Your task to perform on an android device: open app "eBay: The shopping marketplace" (install if not already installed), go to login, and select forgot password Image 0: 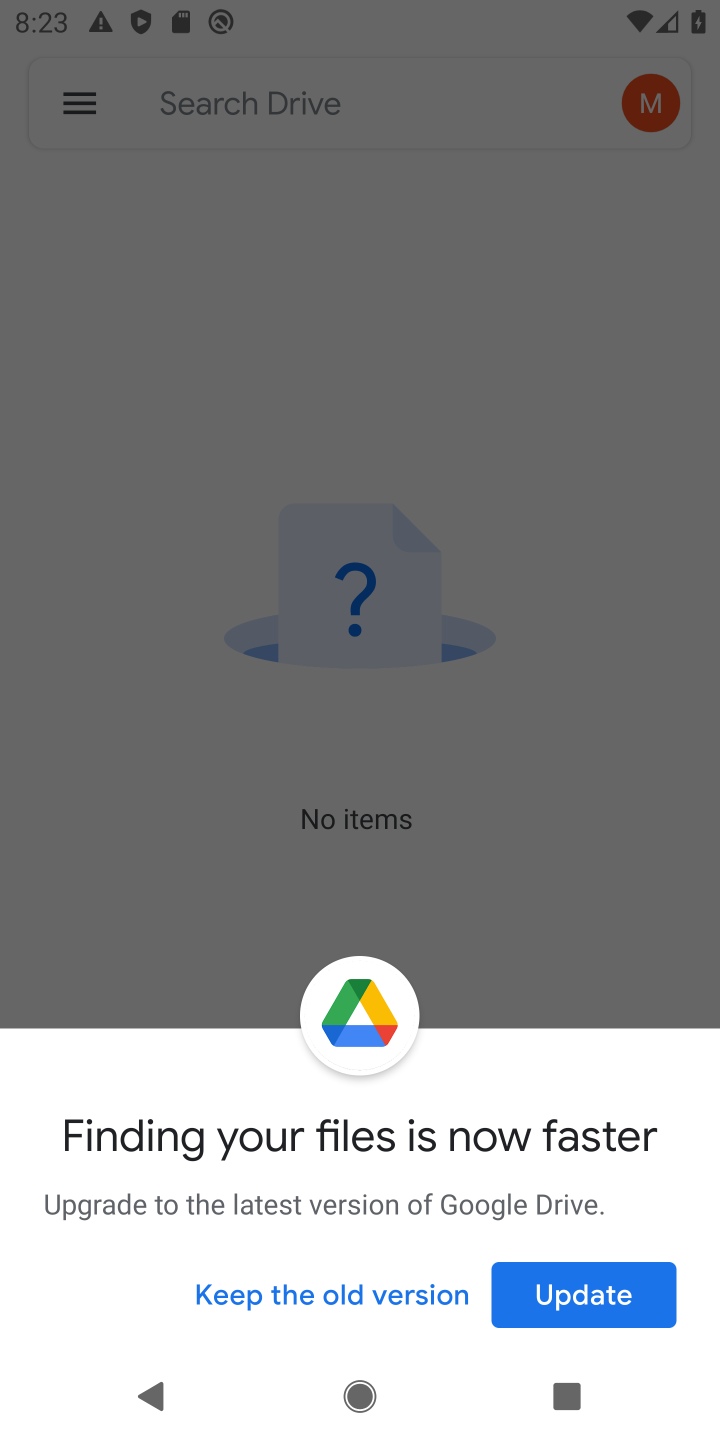
Step 0: press home button
Your task to perform on an android device: open app "eBay: The shopping marketplace" (install if not already installed), go to login, and select forgot password Image 1: 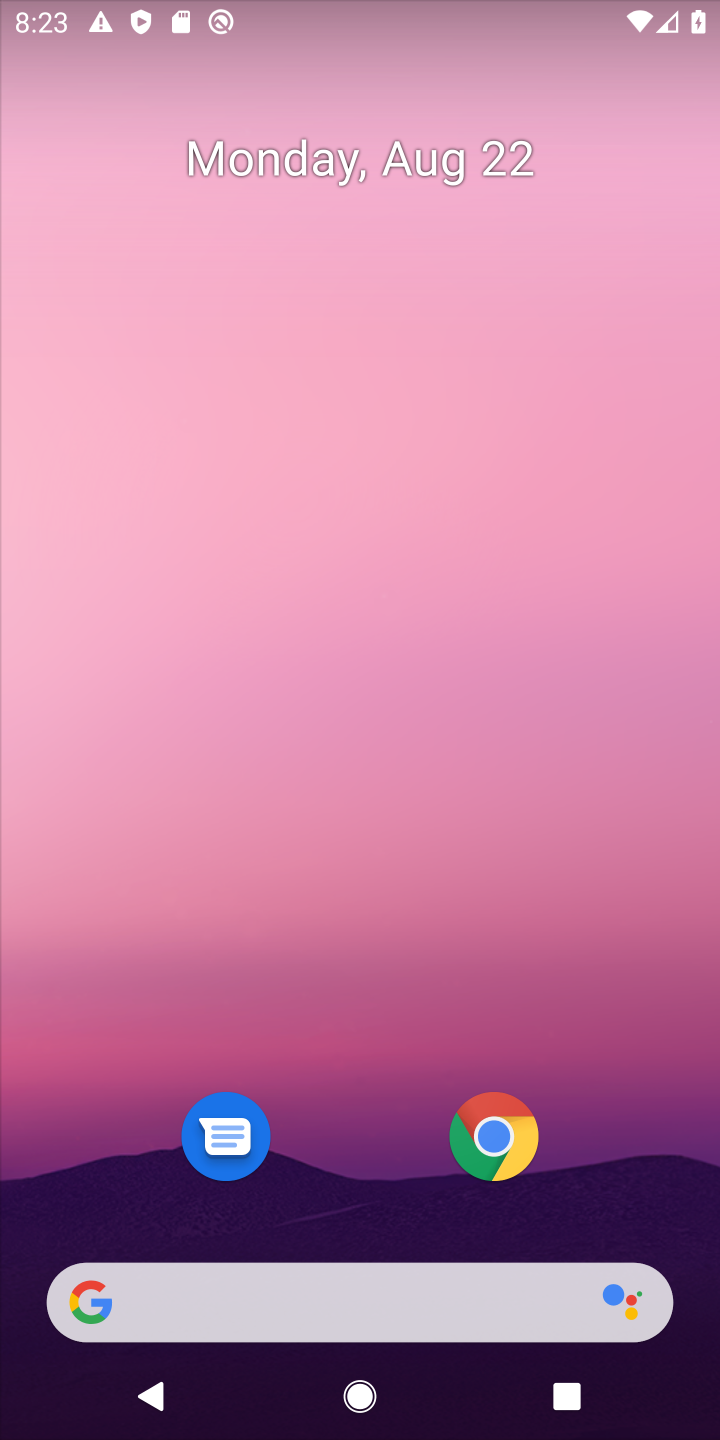
Step 1: drag from (287, 1152) to (413, 620)
Your task to perform on an android device: open app "eBay: The shopping marketplace" (install if not already installed), go to login, and select forgot password Image 2: 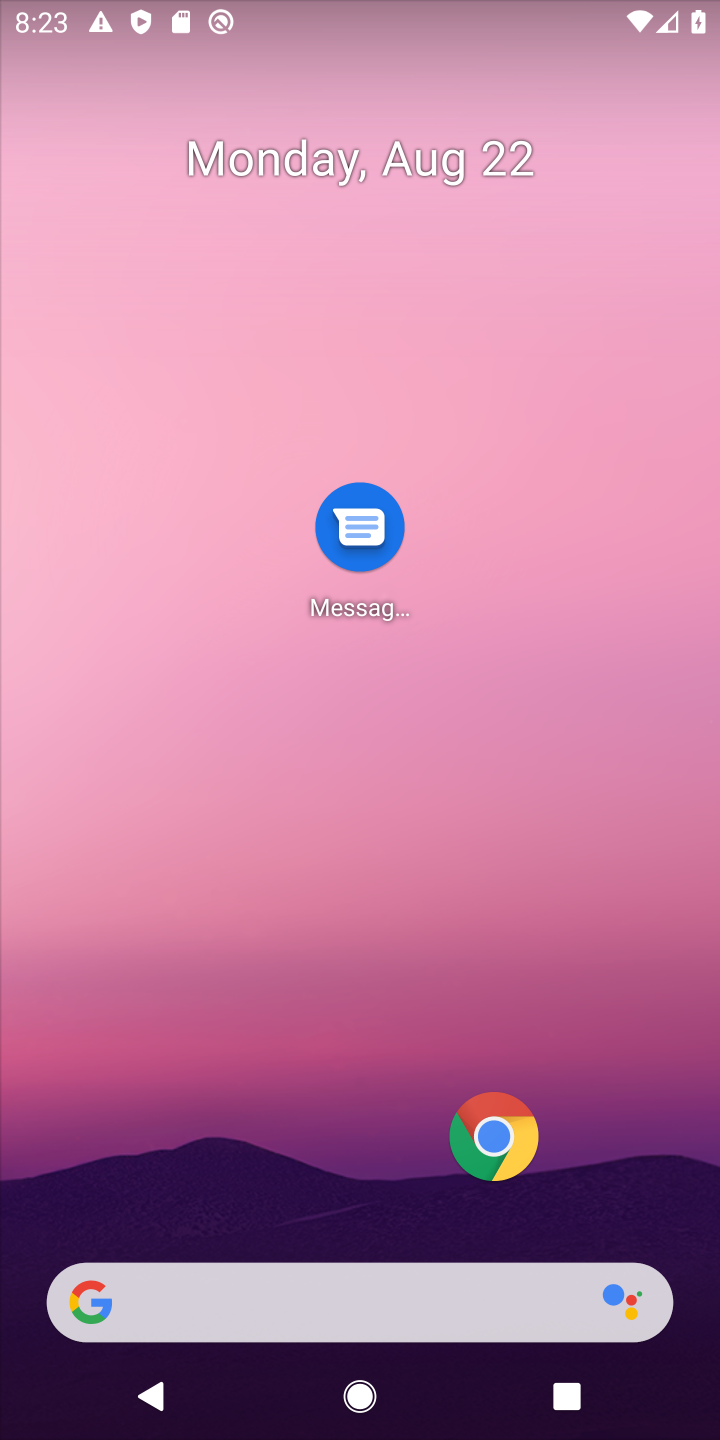
Step 2: drag from (268, 1181) to (285, 363)
Your task to perform on an android device: open app "eBay: The shopping marketplace" (install if not already installed), go to login, and select forgot password Image 3: 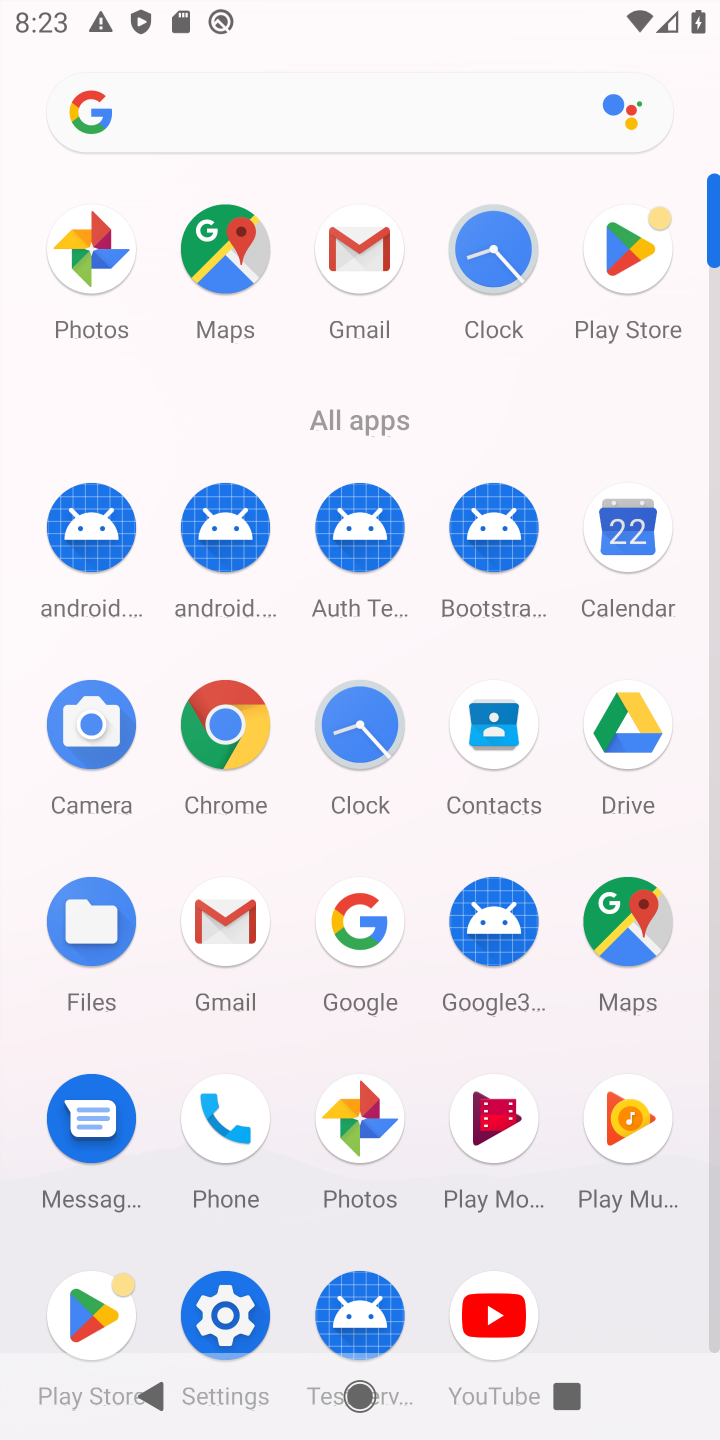
Step 3: click (650, 206)
Your task to perform on an android device: open app "eBay: The shopping marketplace" (install if not already installed), go to login, and select forgot password Image 4: 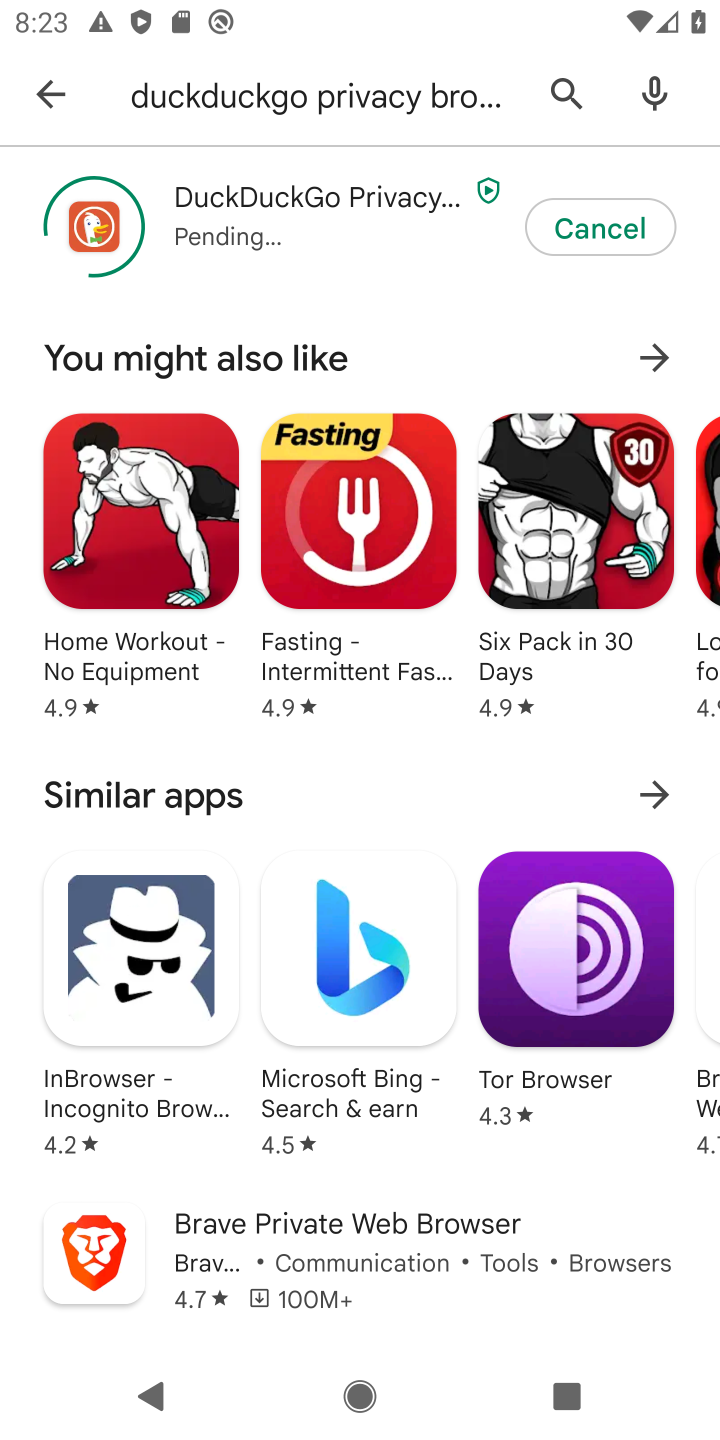
Step 4: click (70, 86)
Your task to perform on an android device: open app "eBay: The shopping marketplace" (install if not already installed), go to login, and select forgot password Image 5: 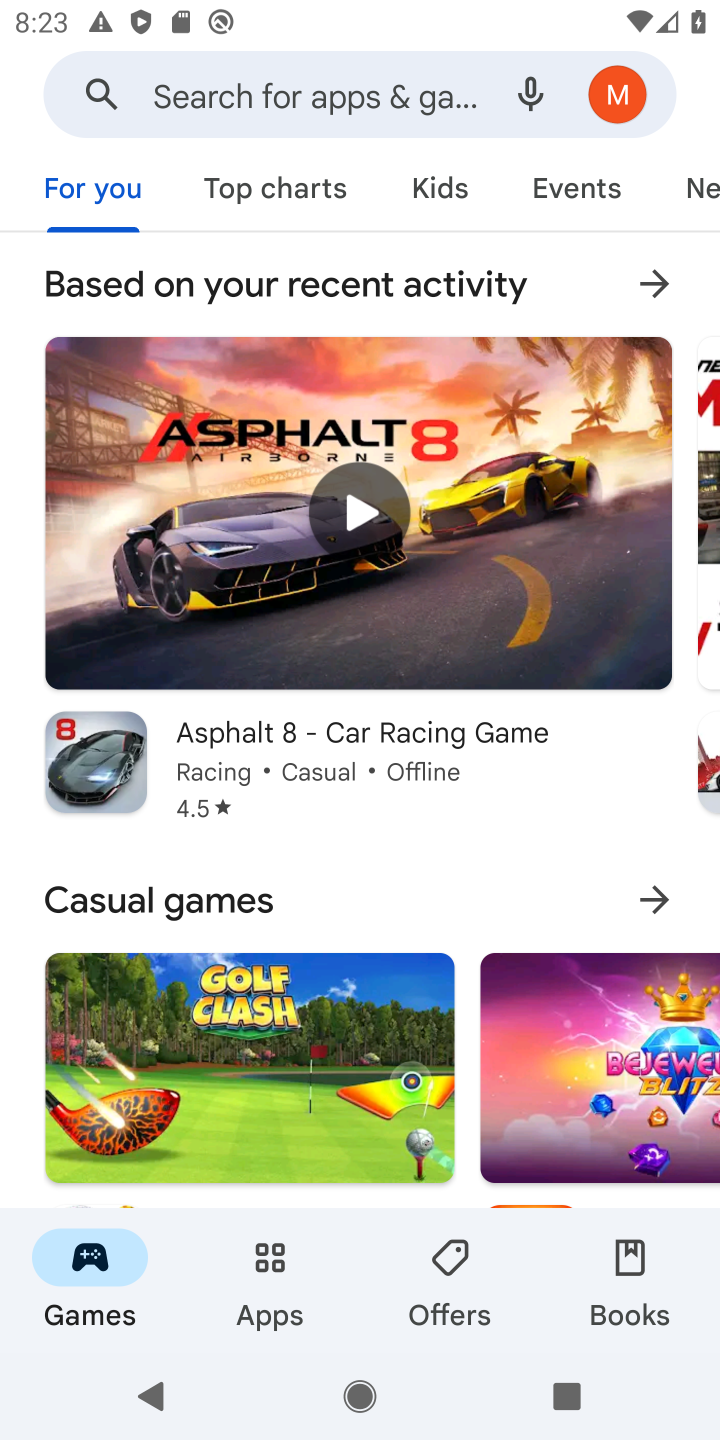
Step 5: click (247, 89)
Your task to perform on an android device: open app "eBay: The shopping marketplace" (install if not already installed), go to login, and select forgot password Image 6: 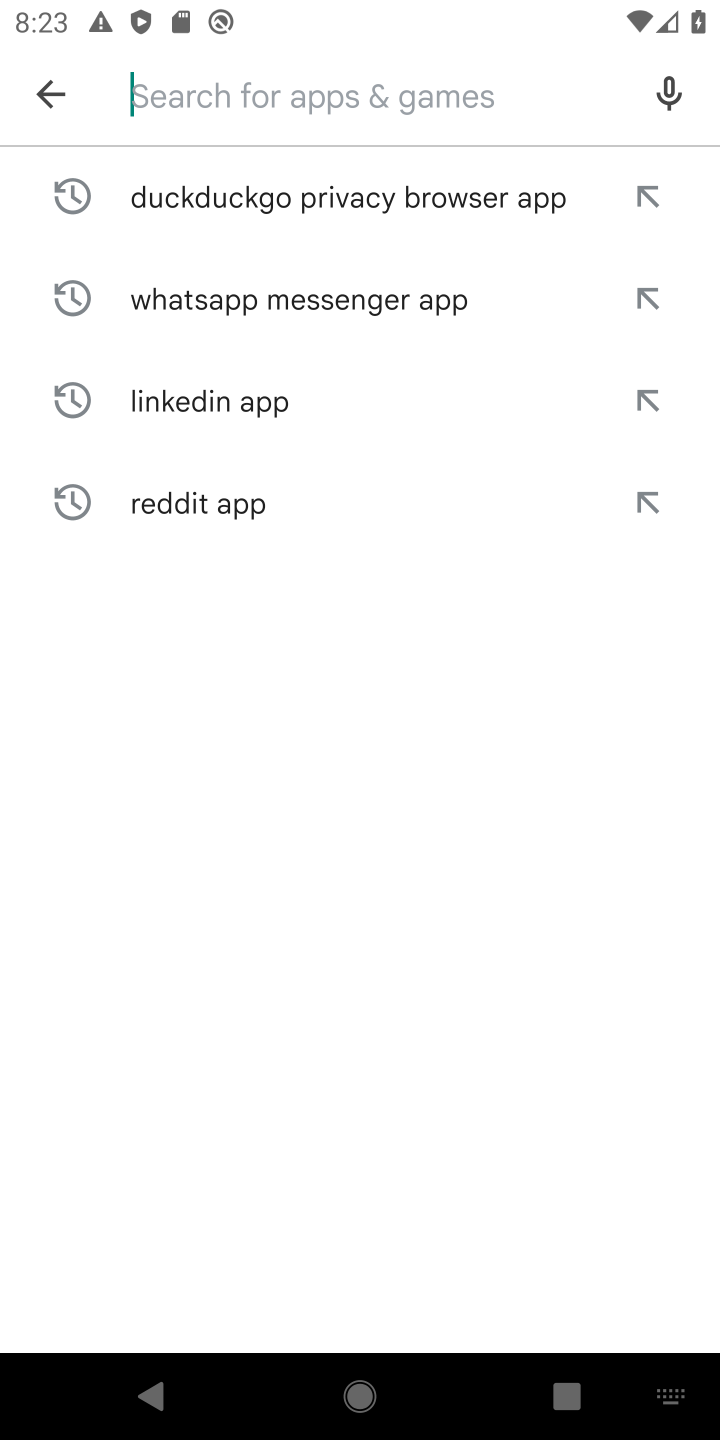
Step 6: type "ebay "
Your task to perform on an android device: open app "eBay: The shopping marketplace" (install if not already installed), go to login, and select forgot password Image 7: 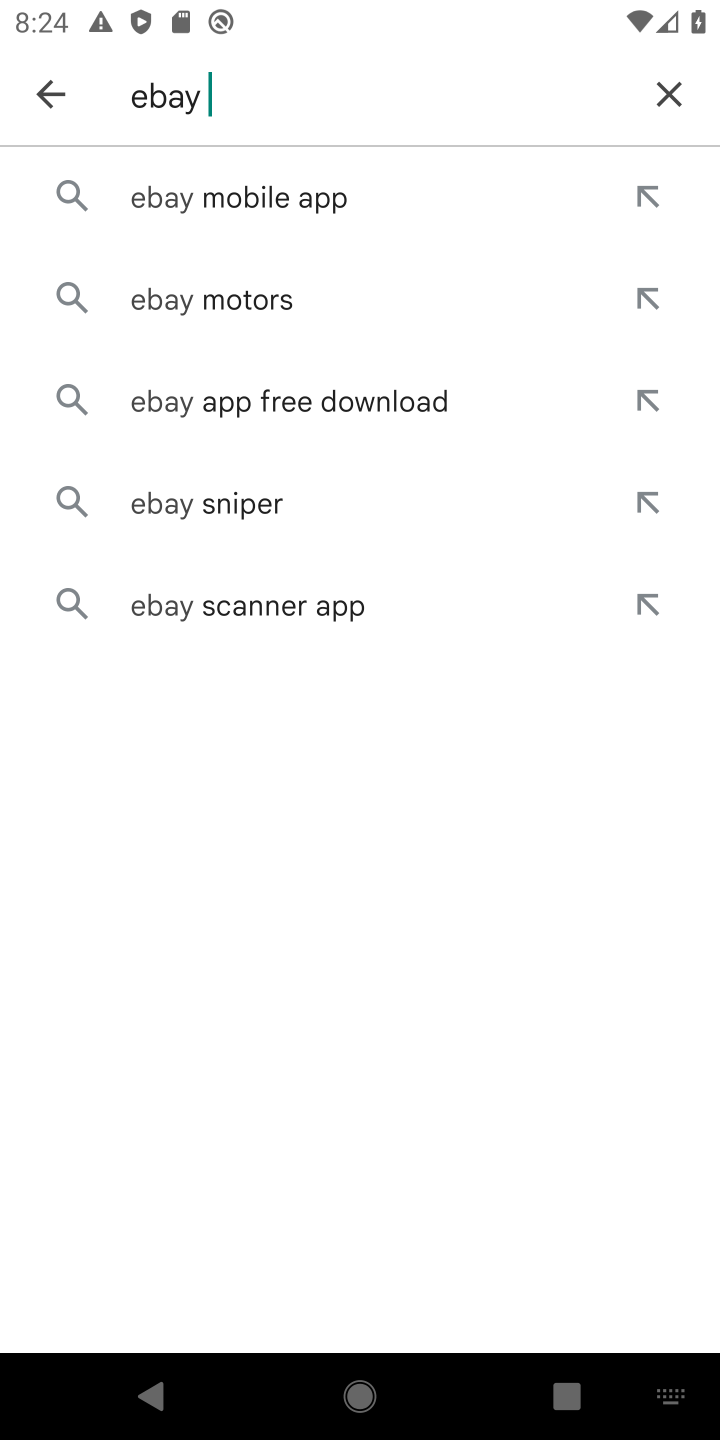
Step 7: click (247, 202)
Your task to perform on an android device: open app "eBay: The shopping marketplace" (install if not already installed), go to login, and select forgot password Image 8: 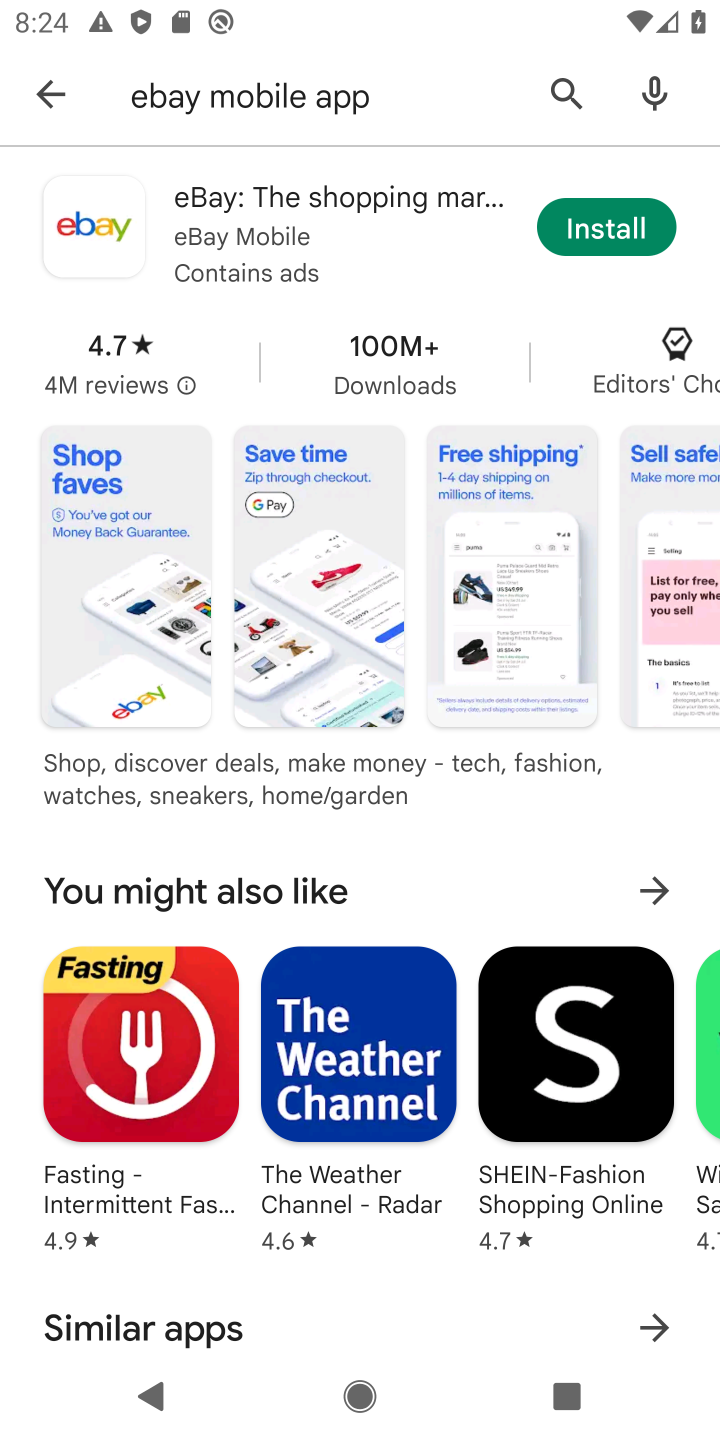
Step 8: click (583, 214)
Your task to perform on an android device: open app "eBay: The shopping marketplace" (install if not already installed), go to login, and select forgot password Image 9: 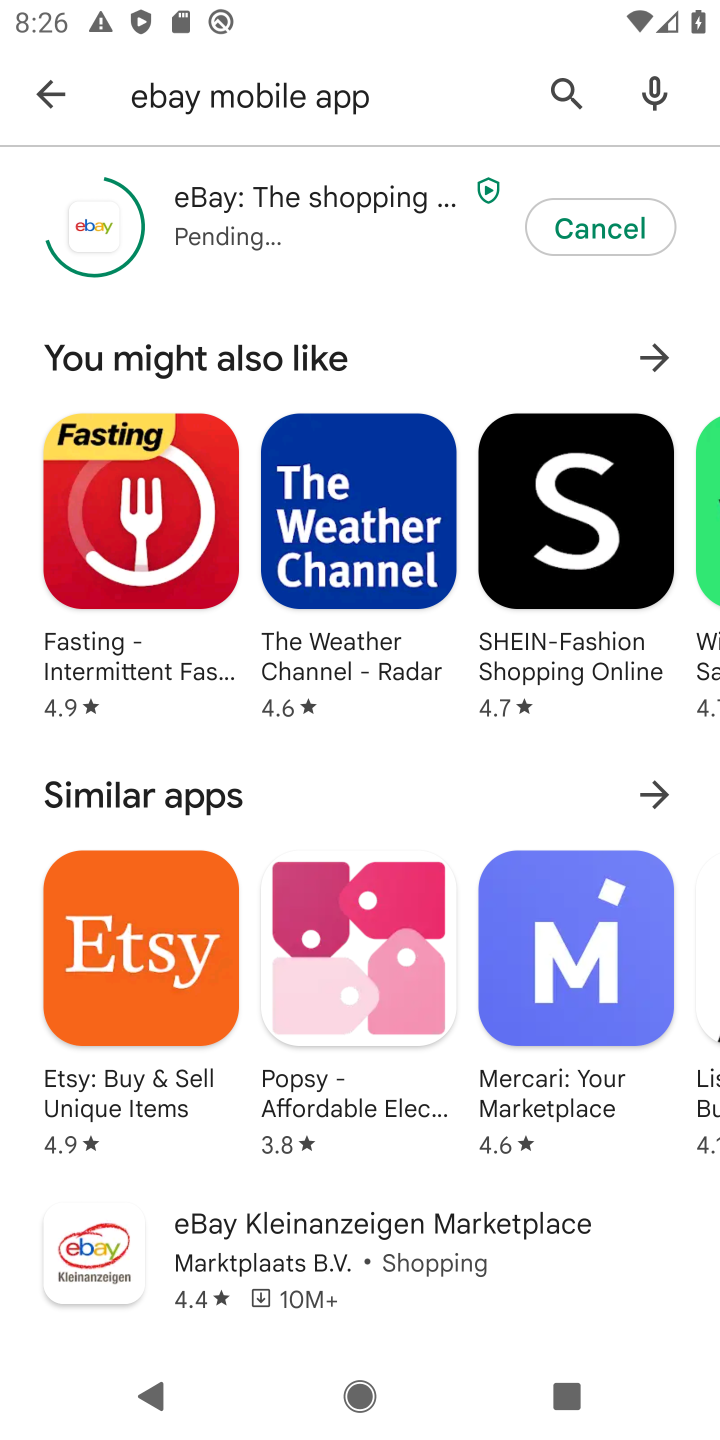
Step 9: task complete